Your task to perform on an android device: snooze an email in the gmail app Image 0: 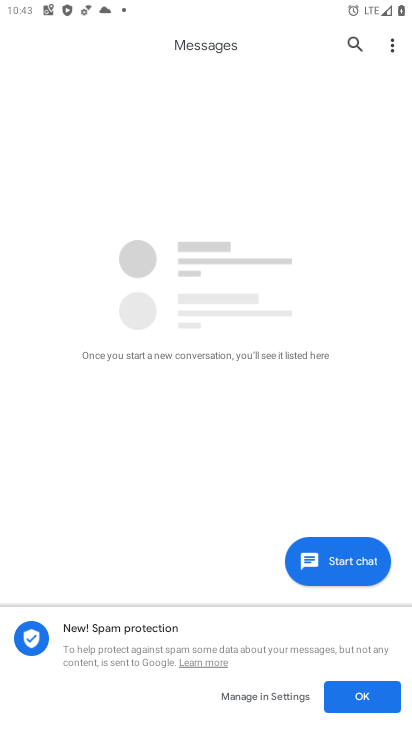
Step 0: press home button
Your task to perform on an android device: snooze an email in the gmail app Image 1: 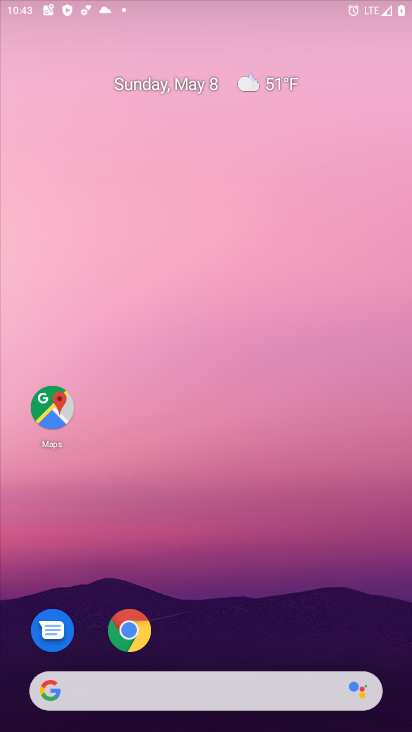
Step 1: drag from (378, 610) to (278, 55)
Your task to perform on an android device: snooze an email in the gmail app Image 2: 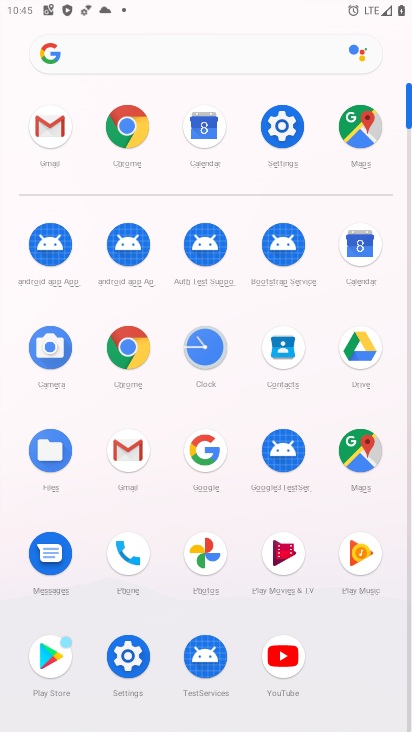
Step 2: click (123, 454)
Your task to perform on an android device: snooze an email in the gmail app Image 3: 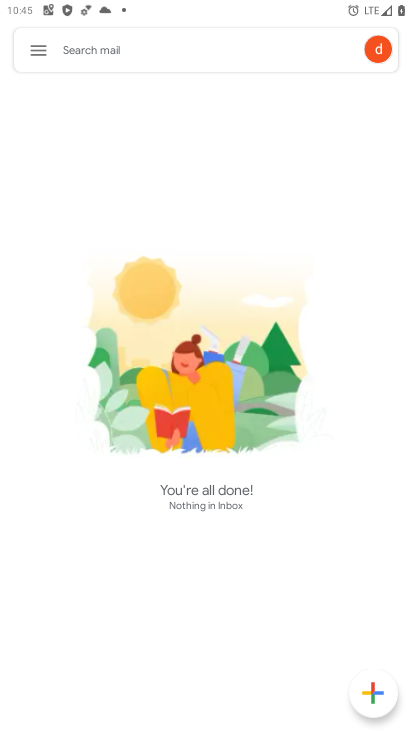
Step 3: click (37, 51)
Your task to perform on an android device: snooze an email in the gmail app Image 4: 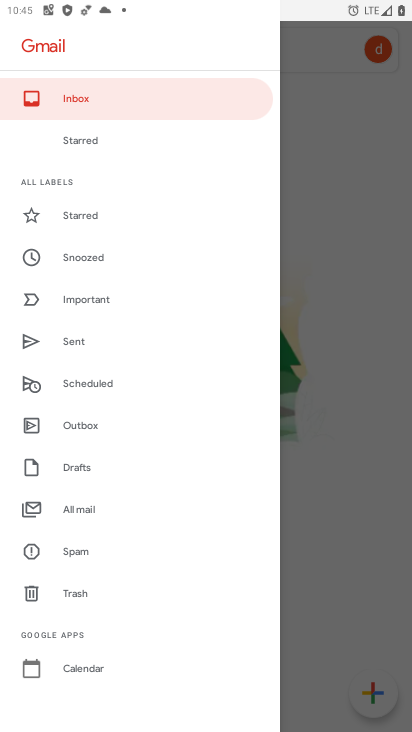
Step 4: click (328, 205)
Your task to perform on an android device: snooze an email in the gmail app Image 5: 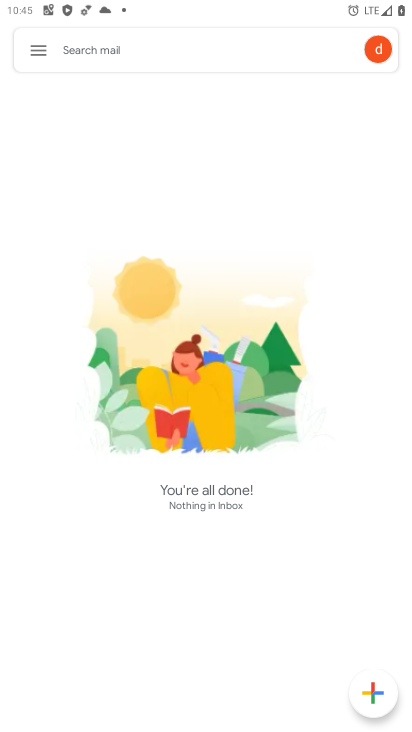
Step 5: task complete